Your task to perform on an android device: Open Google Chrome and open the bookmarks view Image 0: 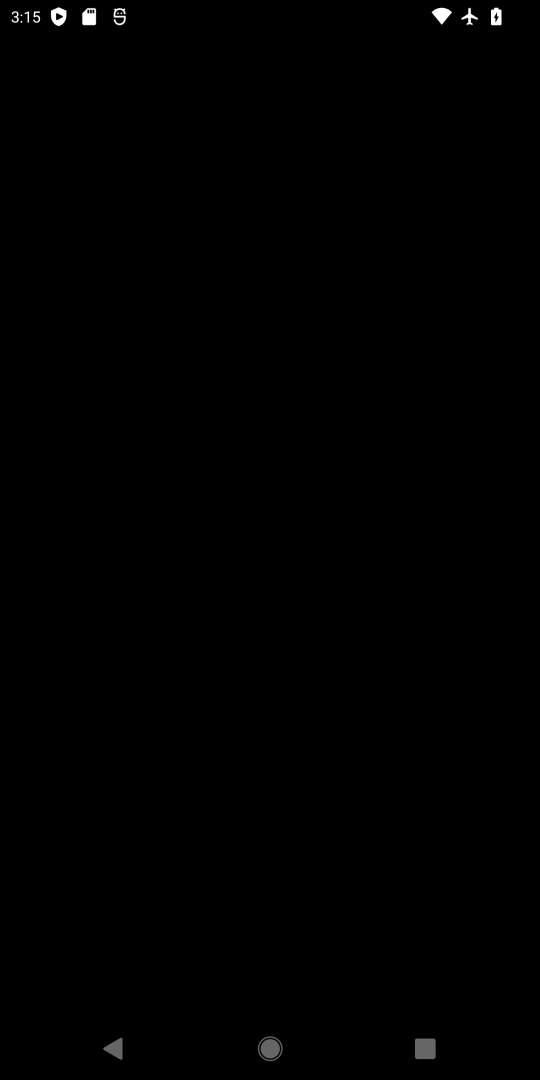
Step 0: press home button
Your task to perform on an android device: Open Google Chrome and open the bookmarks view Image 1: 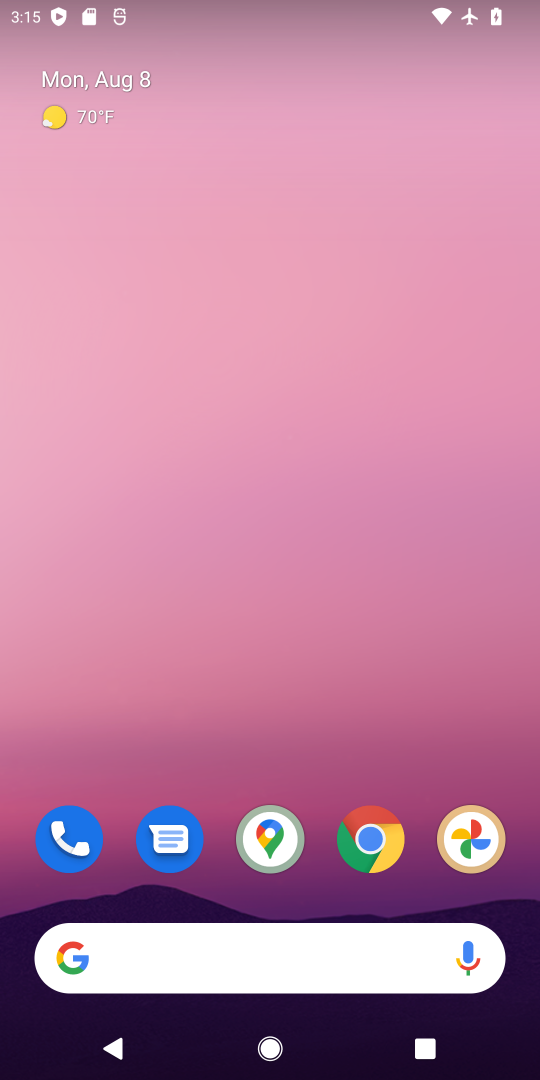
Step 1: drag from (414, 736) to (424, 202)
Your task to perform on an android device: Open Google Chrome and open the bookmarks view Image 2: 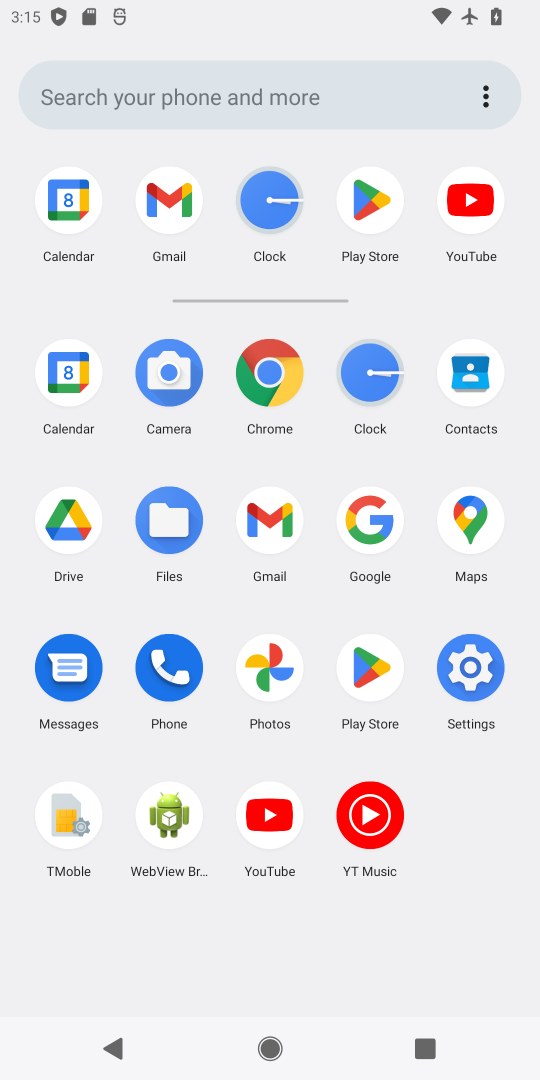
Step 2: click (276, 377)
Your task to perform on an android device: Open Google Chrome and open the bookmarks view Image 3: 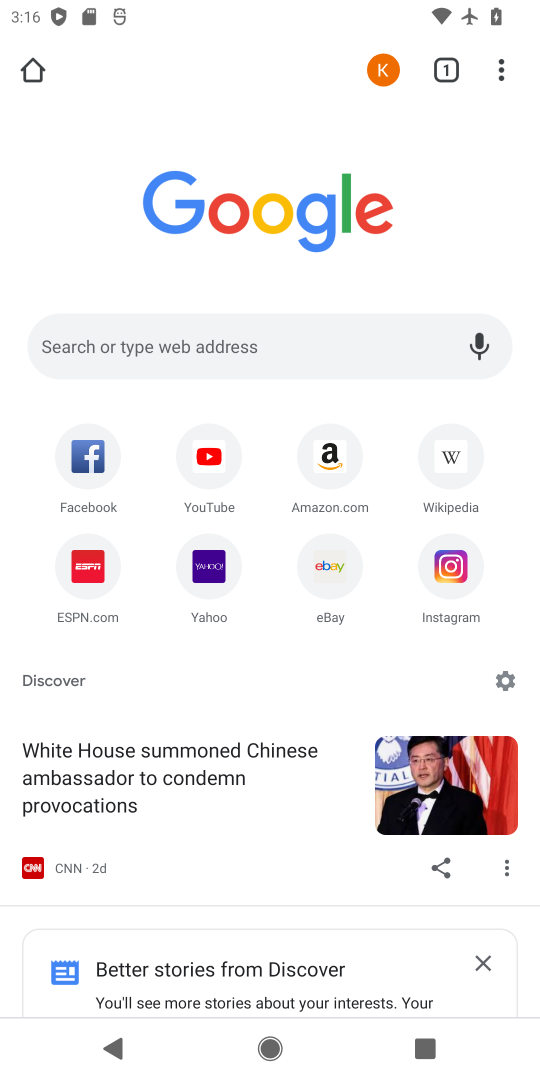
Step 3: click (504, 75)
Your task to perform on an android device: Open Google Chrome and open the bookmarks view Image 4: 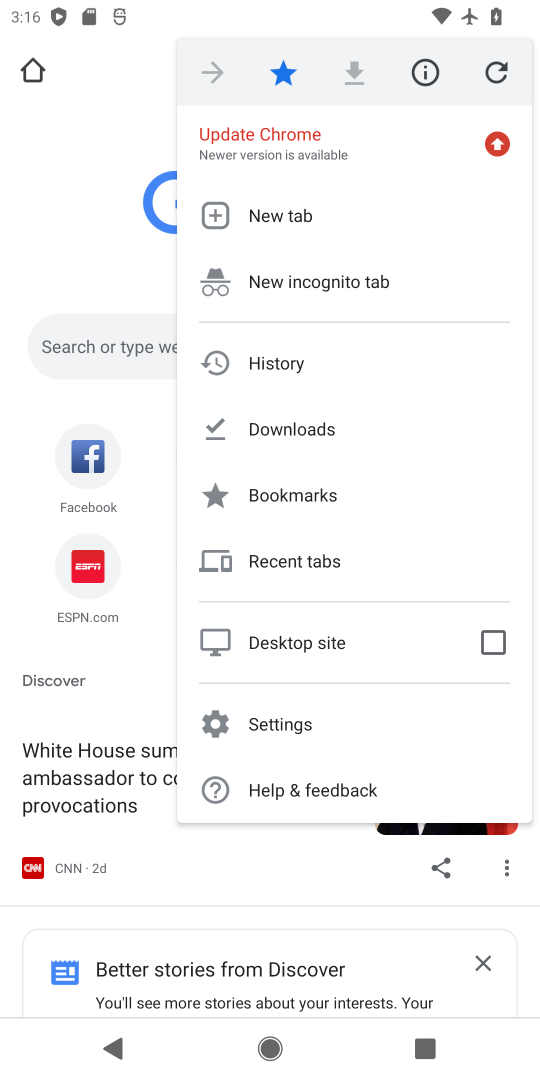
Step 4: click (340, 498)
Your task to perform on an android device: Open Google Chrome and open the bookmarks view Image 5: 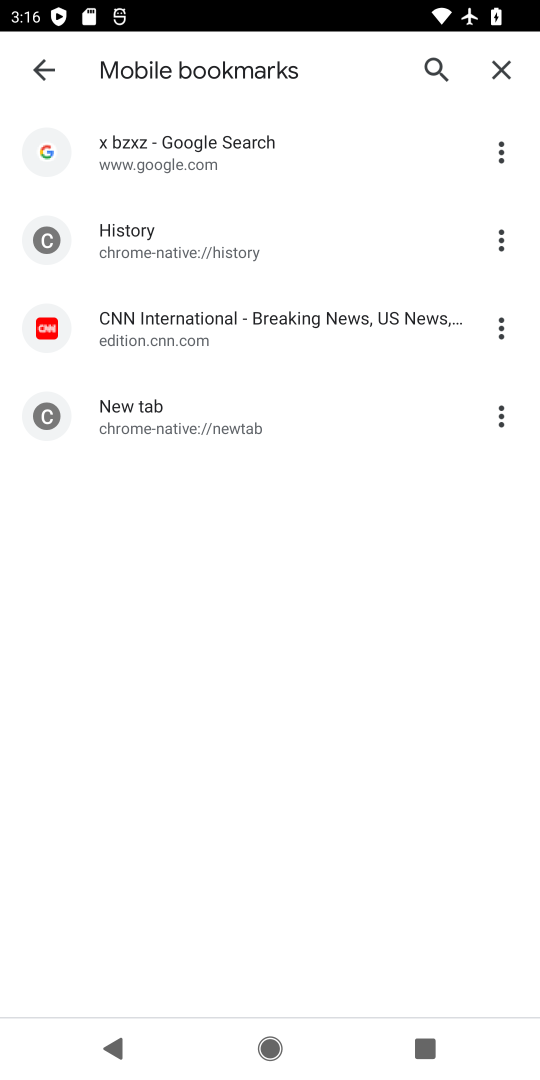
Step 5: task complete